Your task to perform on an android device: open a new tab in the chrome app Image 0: 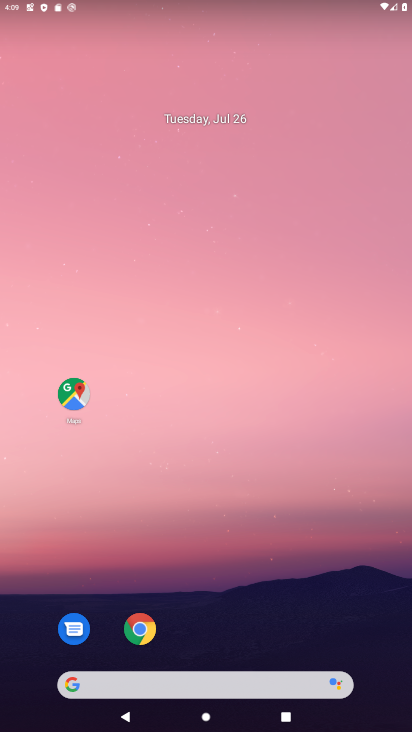
Step 0: click (143, 633)
Your task to perform on an android device: open a new tab in the chrome app Image 1: 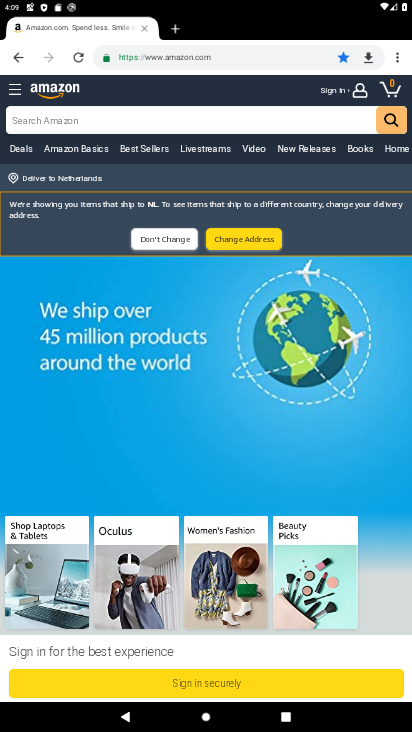
Step 1: click (176, 28)
Your task to perform on an android device: open a new tab in the chrome app Image 2: 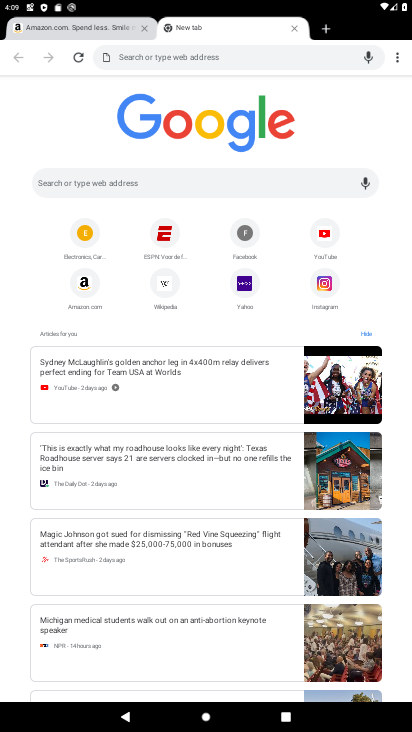
Step 2: task complete